Your task to perform on an android device: When is my next appointment? Image 0: 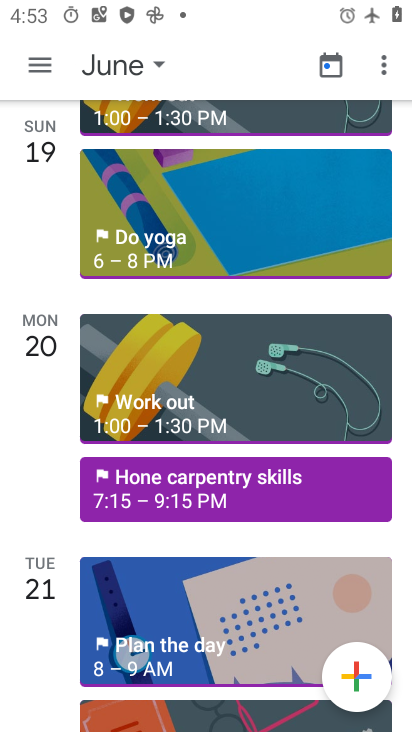
Step 0: drag from (292, 310) to (347, 85)
Your task to perform on an android device: When is my next appointment? Image 1: 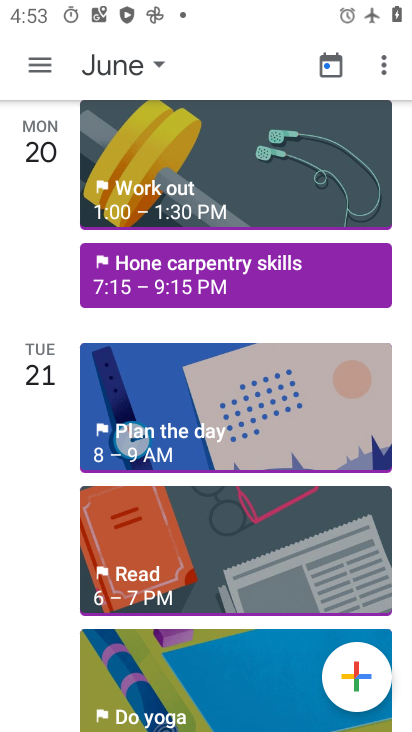
Step 1: task complete